Your task to perform on an android device: Clear the cart on amazon. Search for razer nari on amazon, select the first entry, and add it to the cart. Image 0: 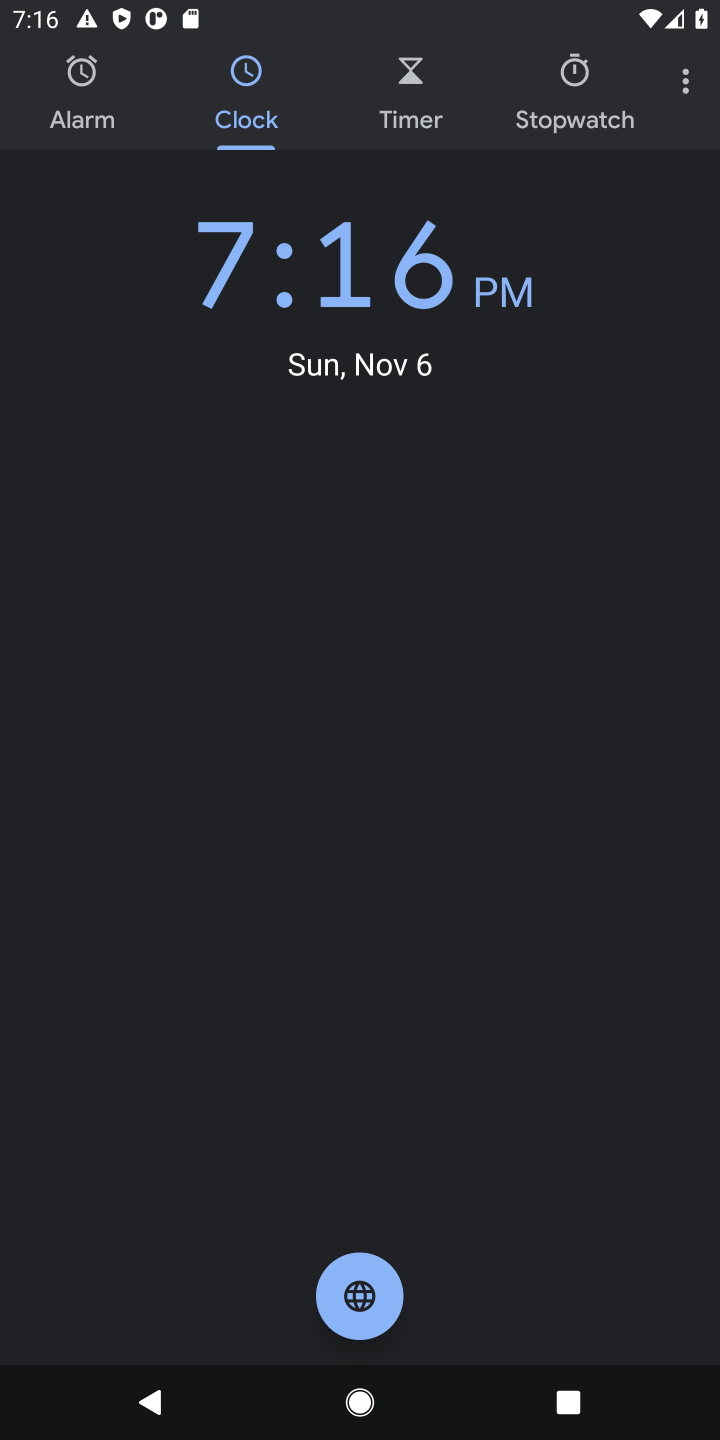
Step 0: press home button
Your task to perform on an android device: Clear the cart on amazon. Search for razer nari on amazon, select the first entry, and add it to the cart. Image 1: 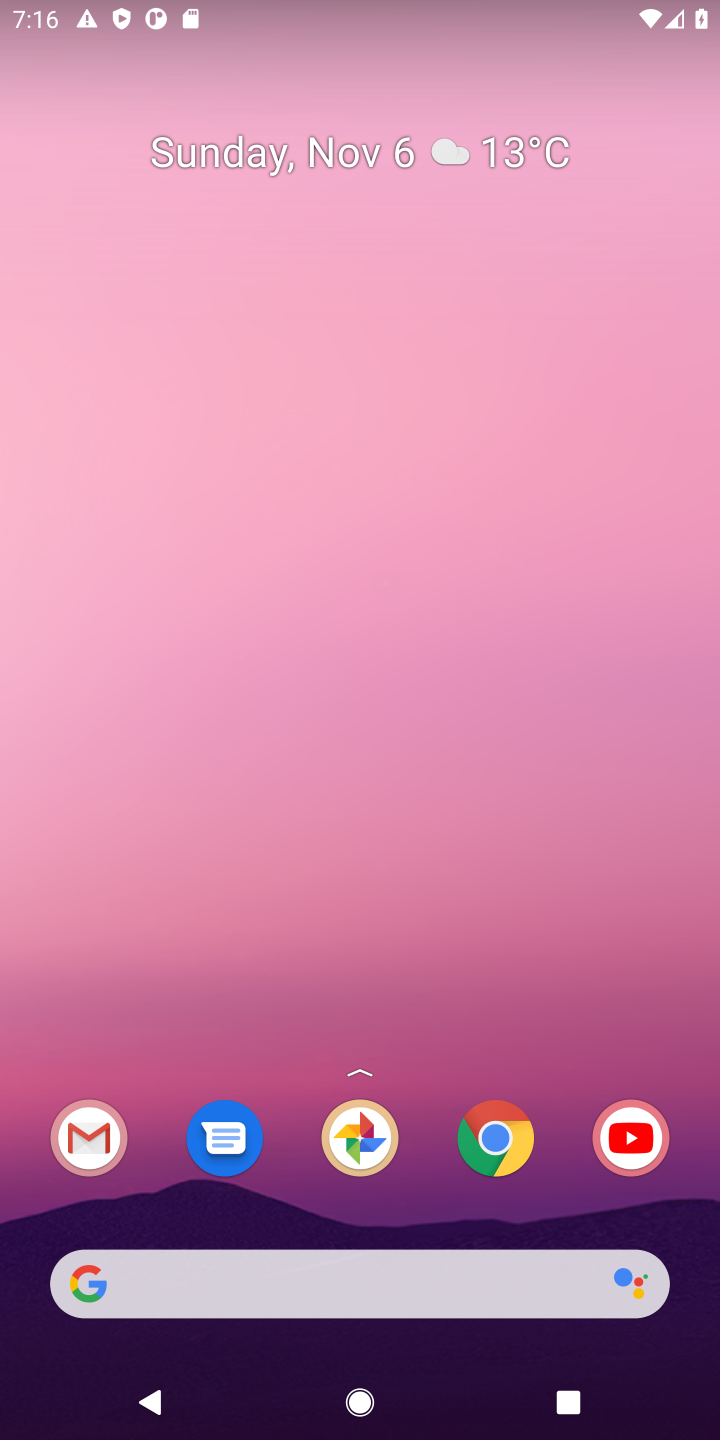
Step 1: click (503, 1133)
Your task to perform on an android device: Clear the cart on amazon. Search for razer nari on amazon, select the first entry, and add it to the cart. Image 2: 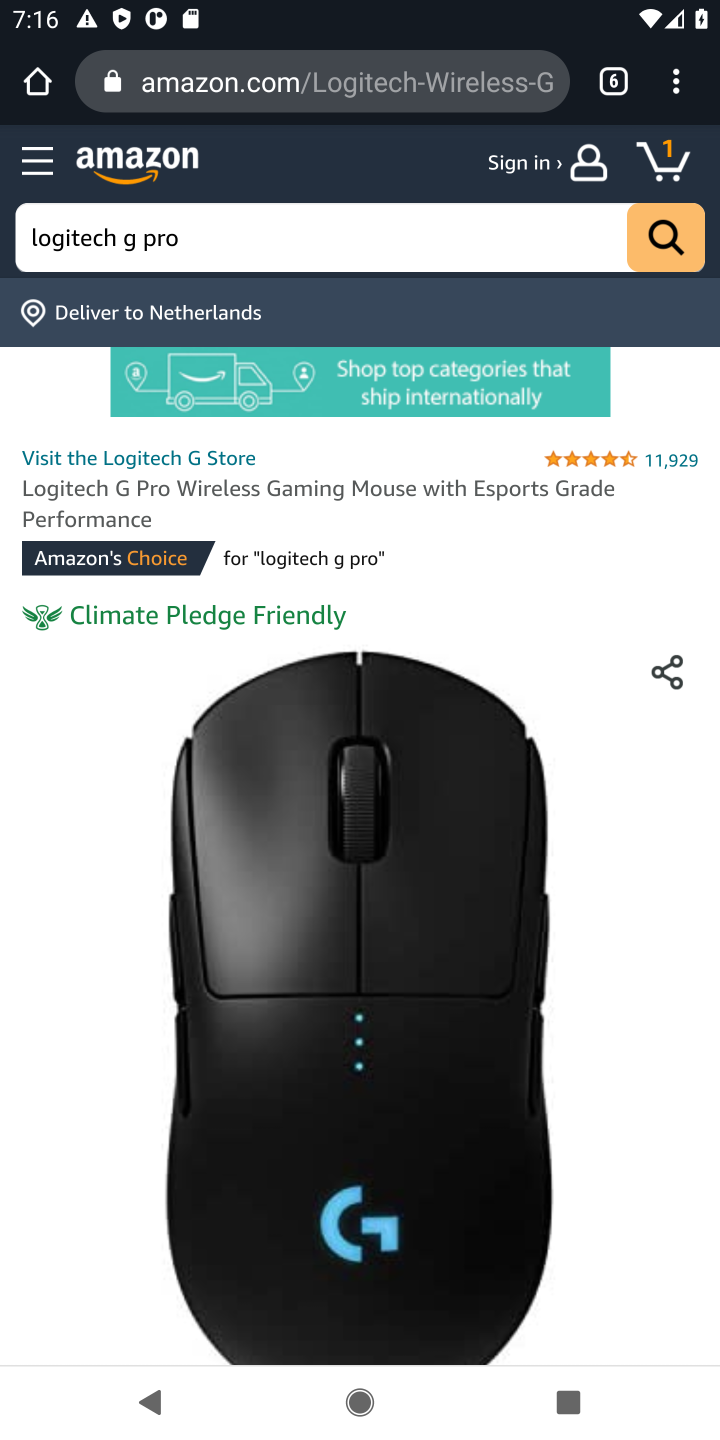
Step 2: click (617, 83)
Your task to perform on an android device: Clear the cart on amazon. Search for razer nari on amazon, select the first entry, and add it to the cart. Image 3: 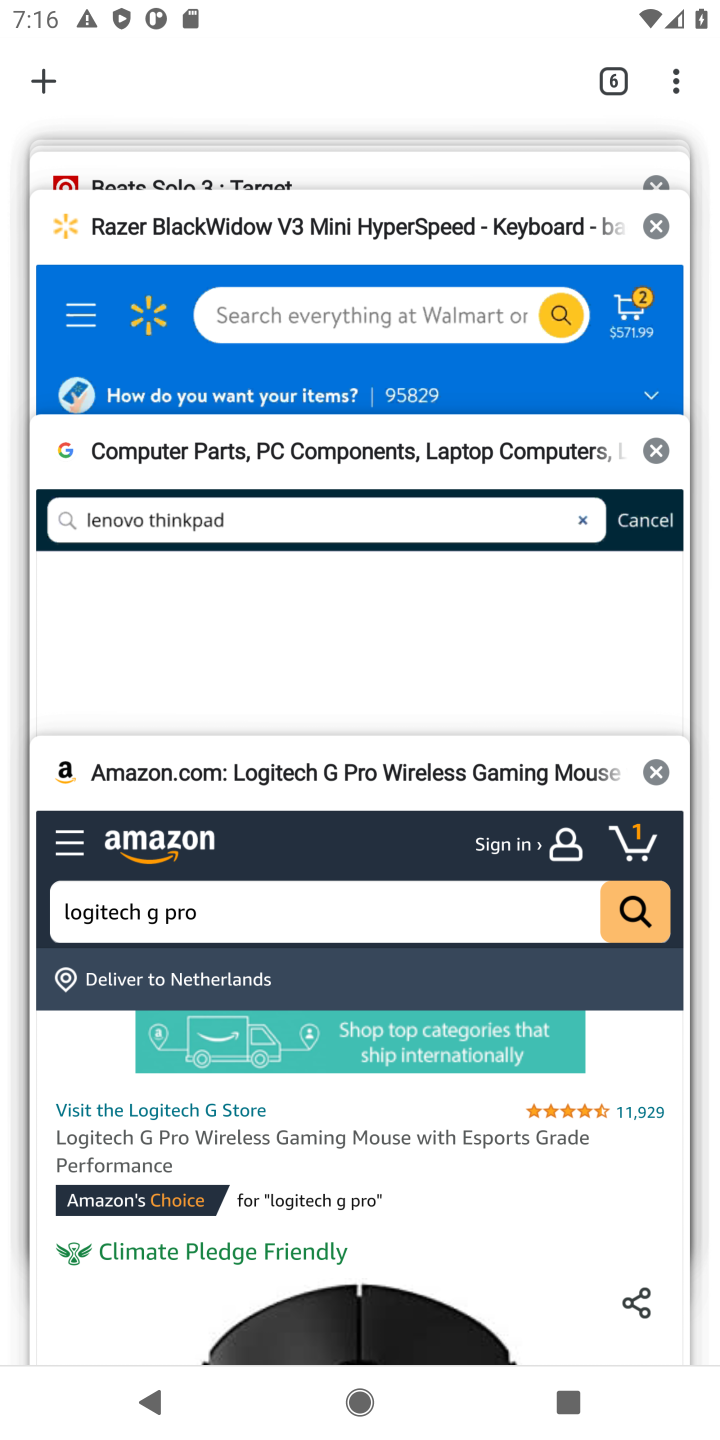
Step 3: click (264, 997)
Your task to perform on an android device: Clear the cart on amazon. Search for razer nari on amazon, select the first entry, and add it to the cart. Image 4: 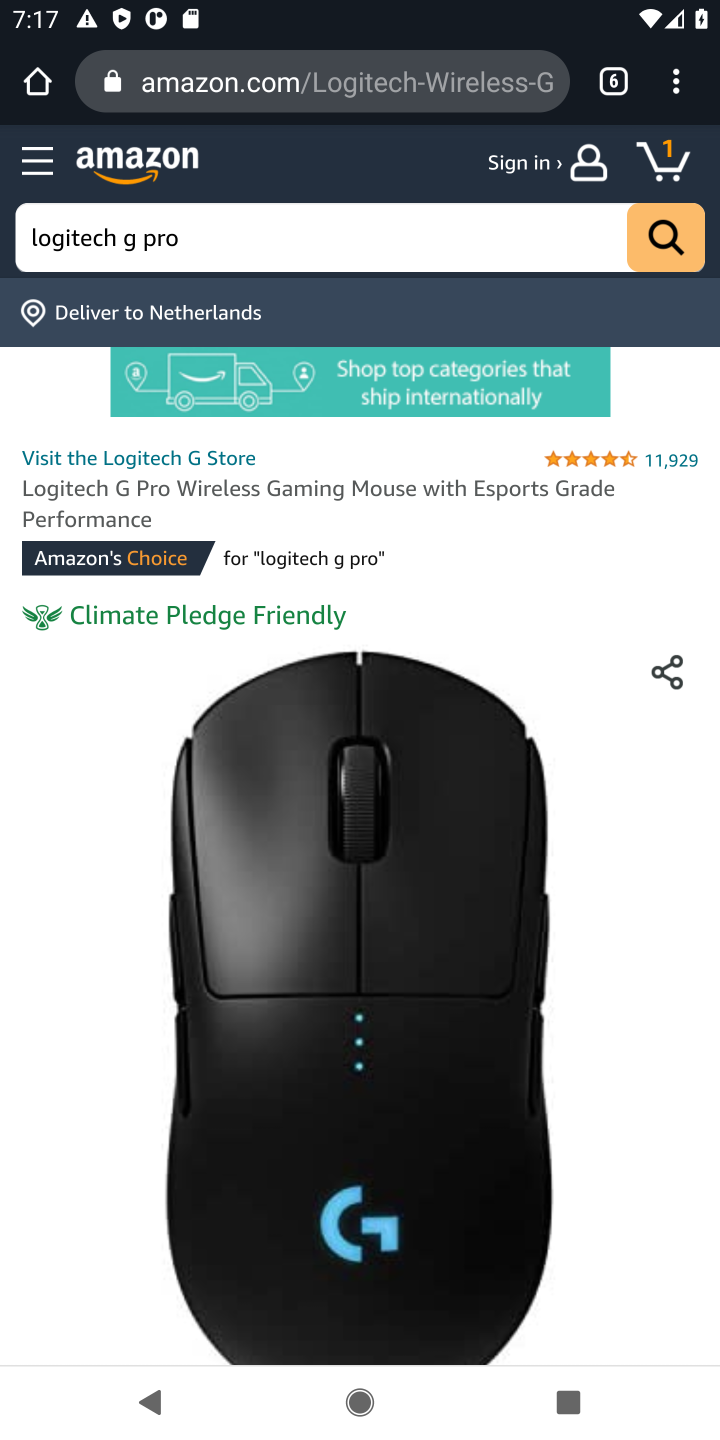
Step 4: click (210, 239)
Your task to perform on an android device: Clear the cart on amazon. Search for razer nari on amazon, select the first entry, and add it to the cart. Image 5: 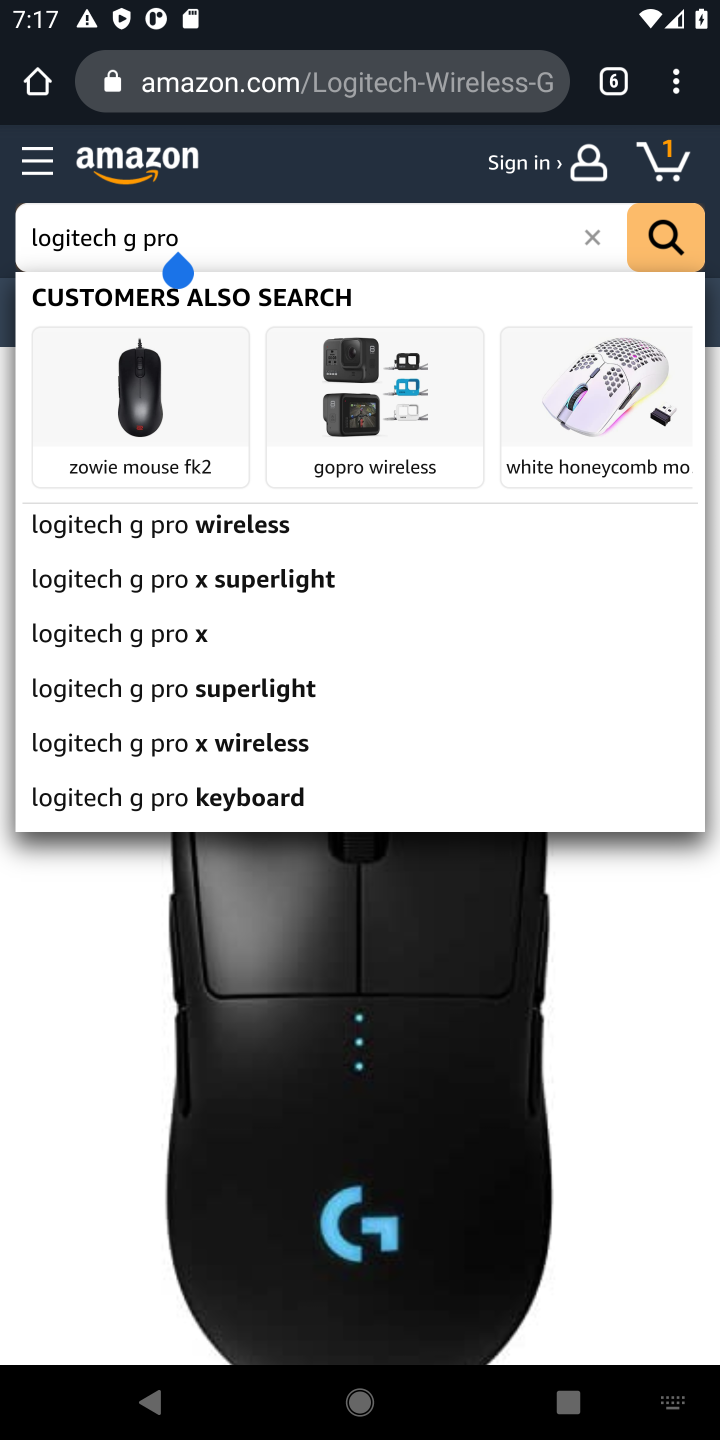
Step 5: click (594, 243)
Your task to perform on an android device: Clear the cart on amazon. Search for razer nari on amazon, select the first entry, and add it to the cart. Image 6: 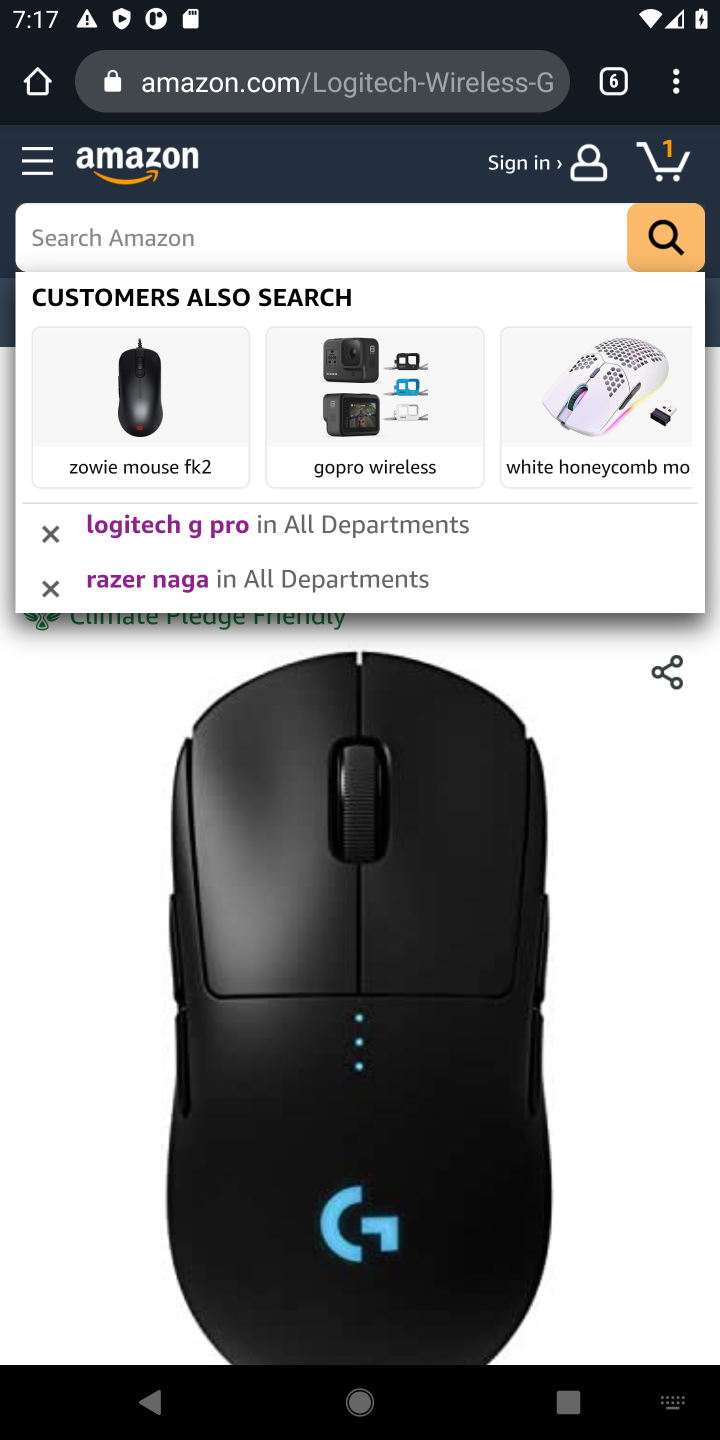
Step 6: click (408, 241)
Your task to perform on an android device: Clear the cart on amazon. Search for razer nari on amazon, select the first entry, and add it to the cart. Image 7: 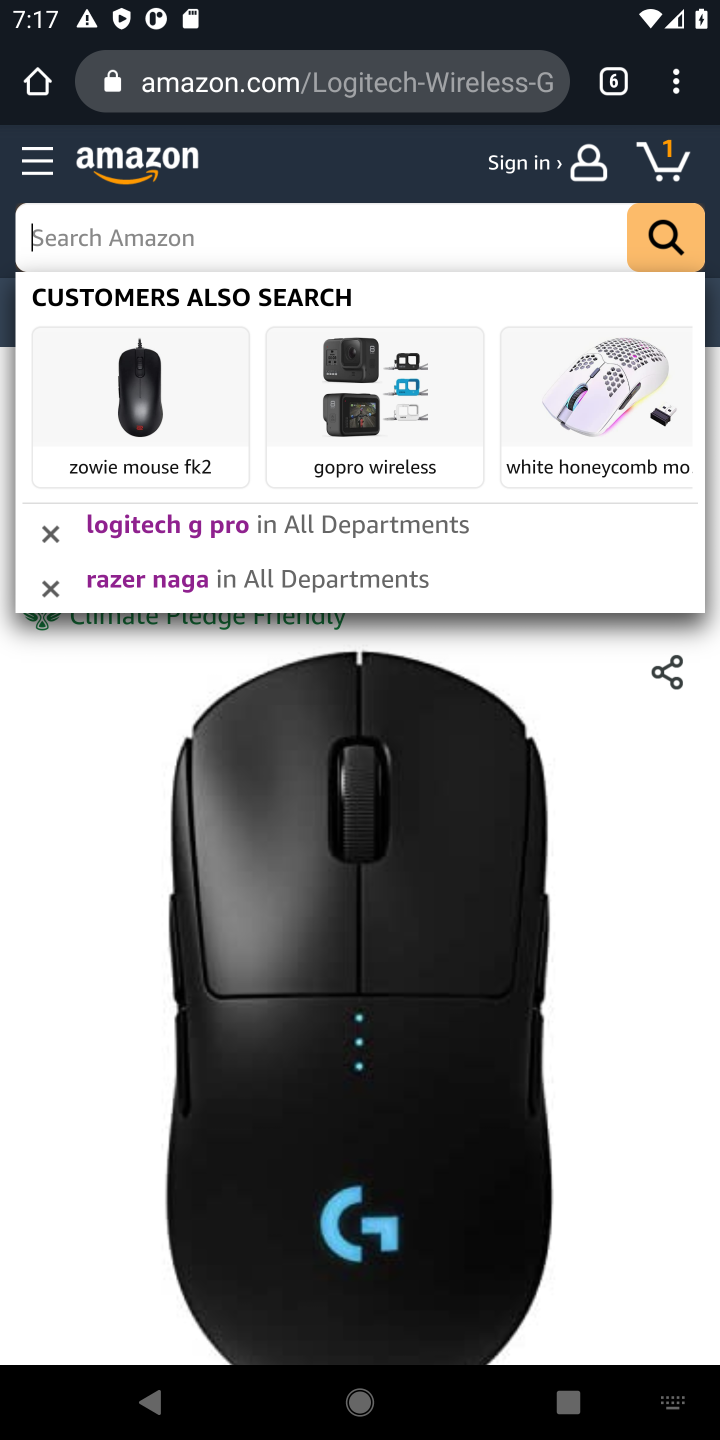
Step 7: click (235, 221)
Your task to perform on an android device: Clear the cart on amazon. Search for razer nari on amazon, select the first entry, and add it to the cart. Image 8: 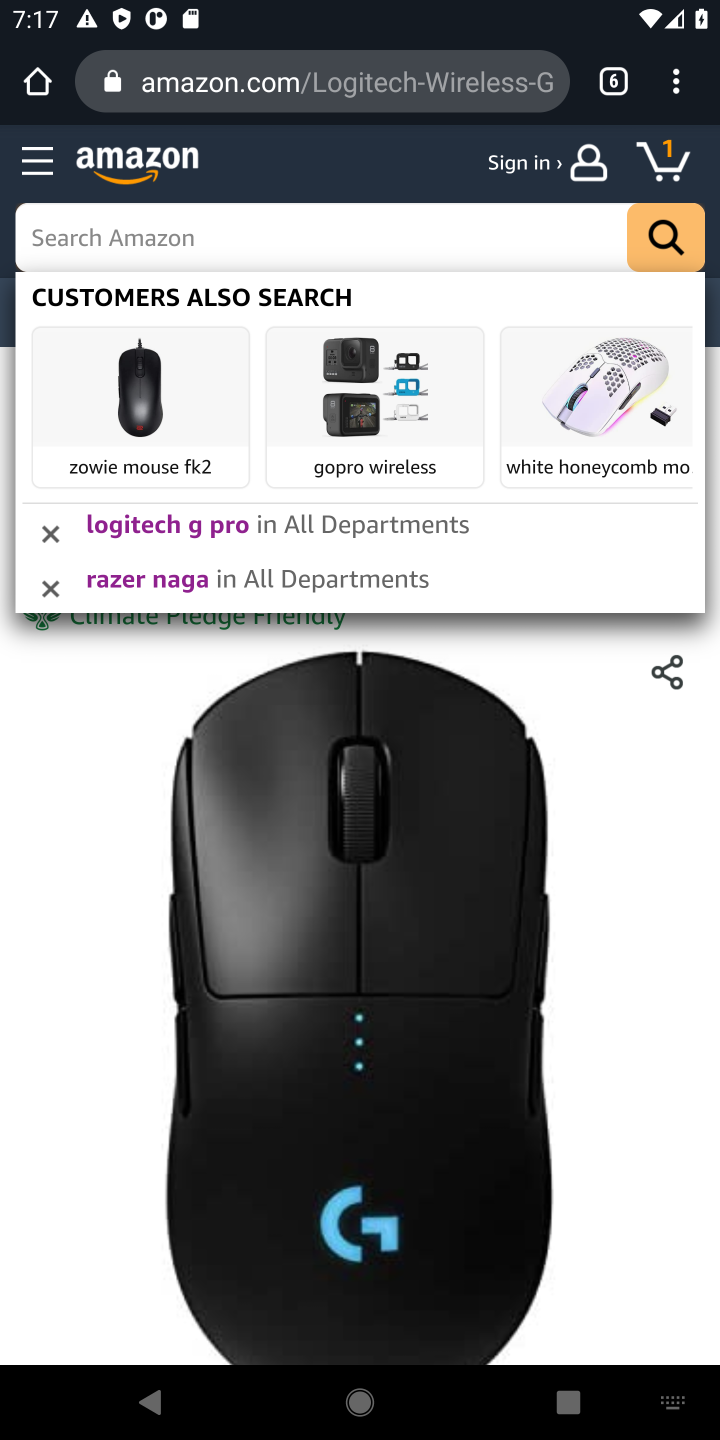
Step 8: click (139, 247)
Your task to perform on an android device: Clear the cart on amazon. Search for razer nari on amazon, select the first entry, and add it to the cart. Image 9: 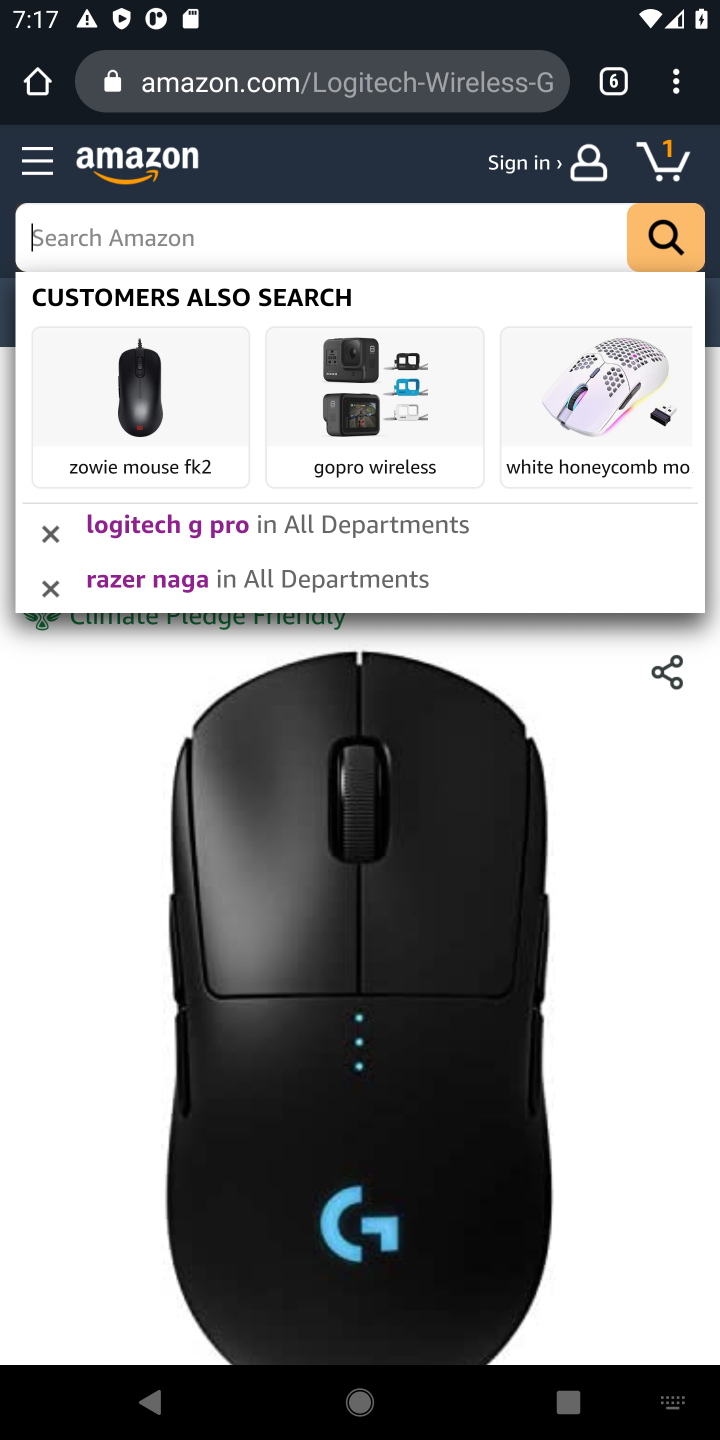
Step 9: type "razer nari"
Your task to perform on an android device: Clear the cart on amazon. Search for razer nari on amazon, select the first entry, and add it to the cart. Image 10: 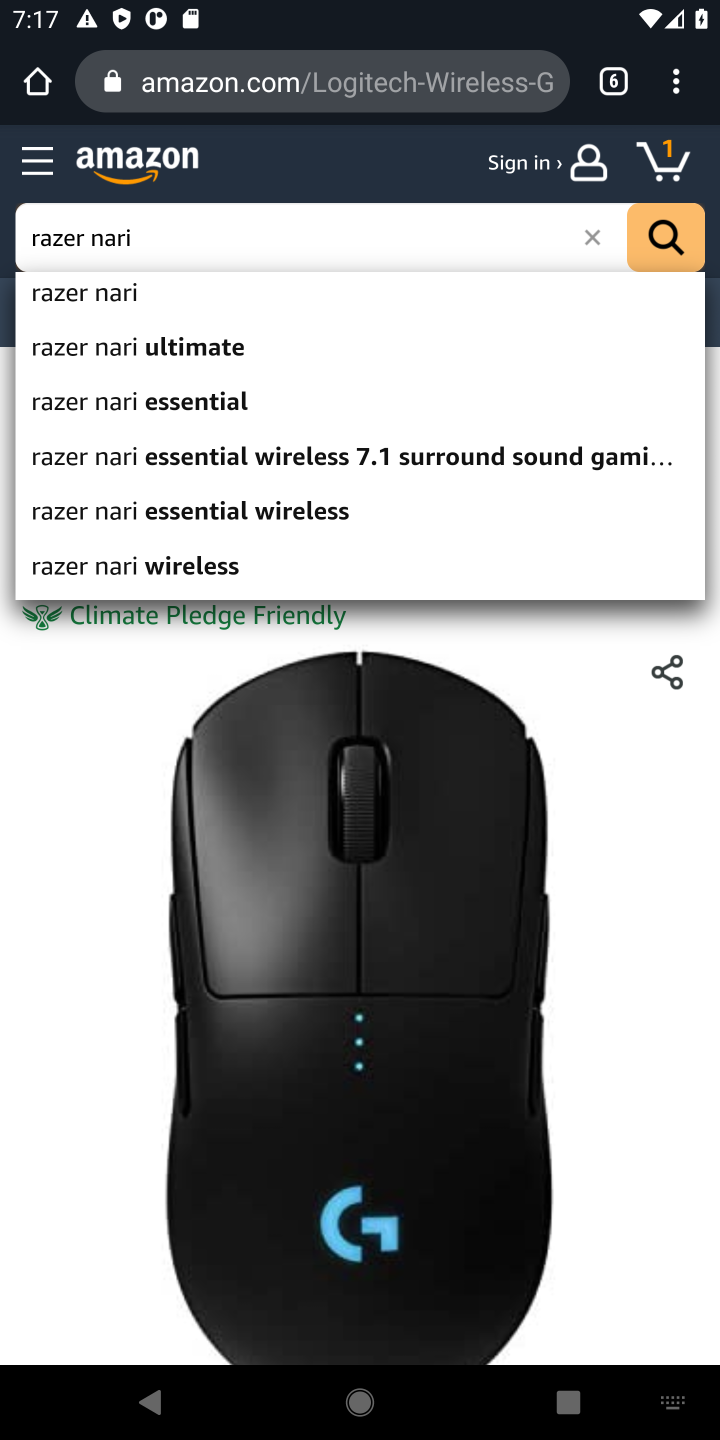
Step 10: click (132, 306)
Your task to perform on an android device: Clear the cart on amazon. Search for razer nari on amazon, select the first entry, and add it to the cart. Image 11: 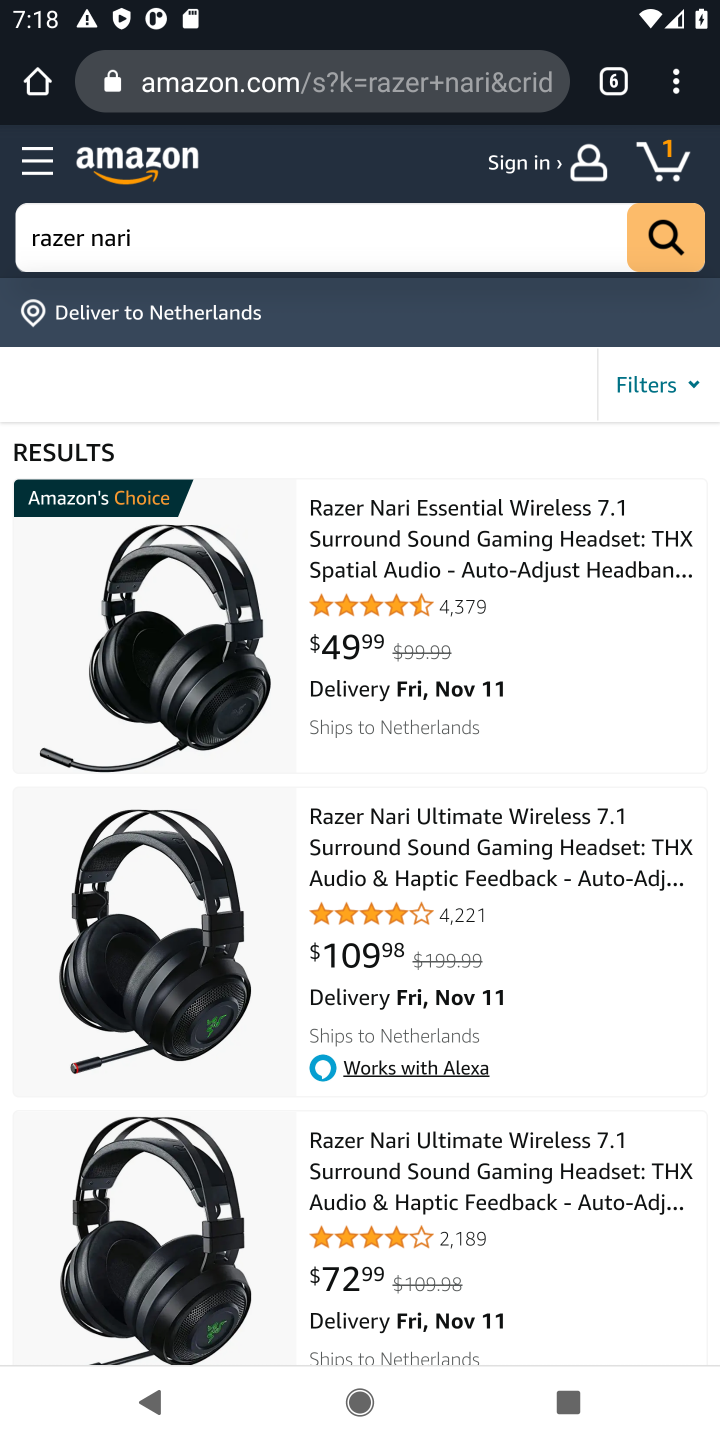
Step 11: click (359, 582)
Your task to perform on an android device: Clear the cart on amazon. Search for razer nari on amazon, select the first entry, and add it to the cart. Image 12: 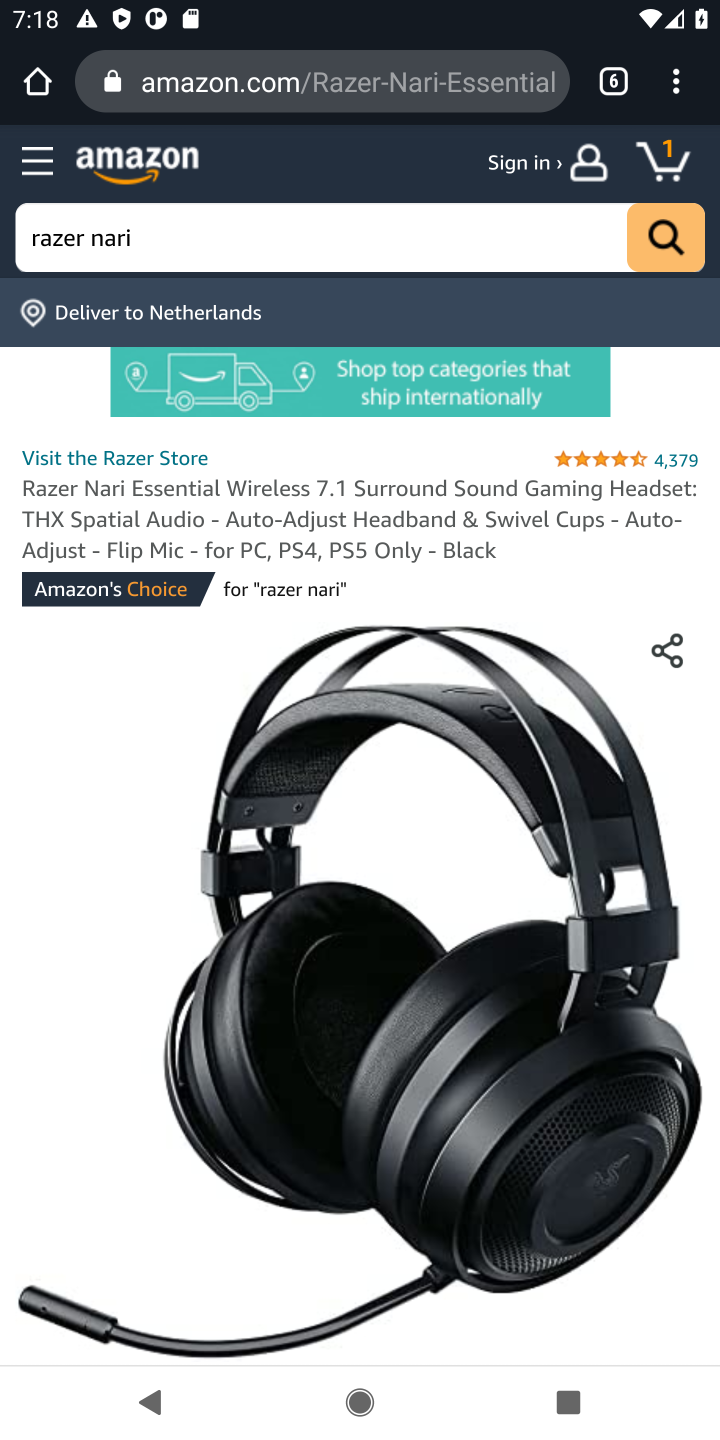
Step 12: drag from (391, 1194) to (447, 555)
Your task to perform on an android device: Clear the cart on amazon. Search for razer nari on amazon, select the first entry, and add it to the cart. Image 13: 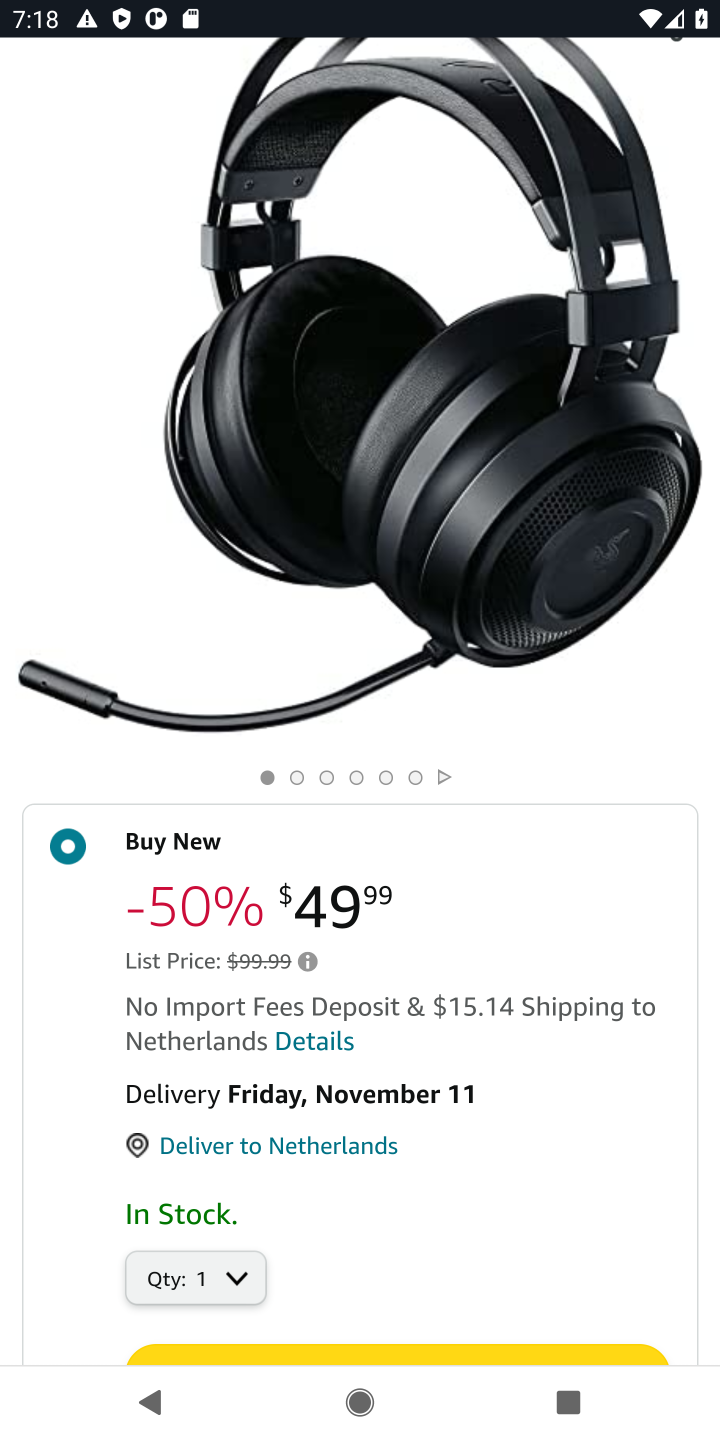
Step 13: drag from (317, 1150) to (391, 388)
Your task to perform on an android device: Clear the cart on amazon. Search for razer nari on amazon, select the first entry, and add it to the cart. Image 14: 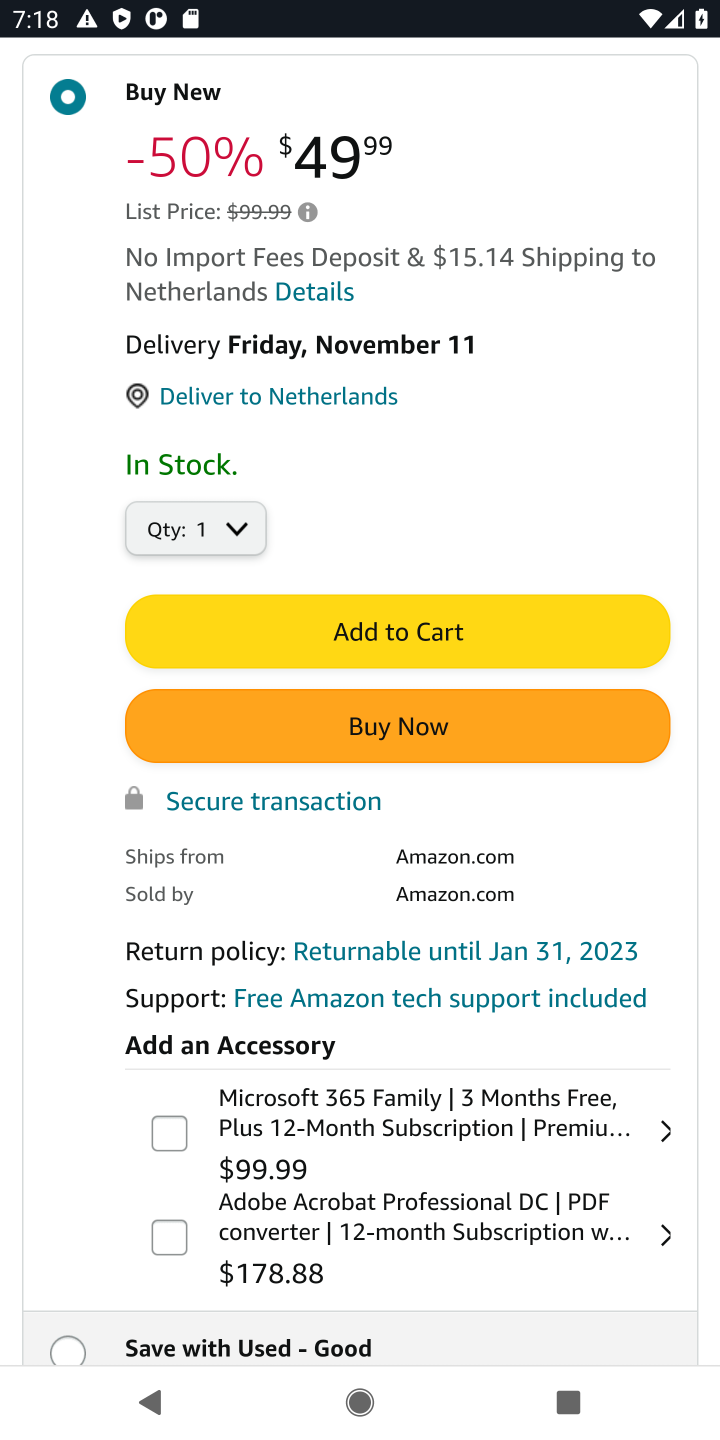
Step 14: click (379, 625)
Your task to perform on an android device: Clear the cart on amazon. Search for razer nari on amazon, select the first entry, and add it to the cart. Image 15: 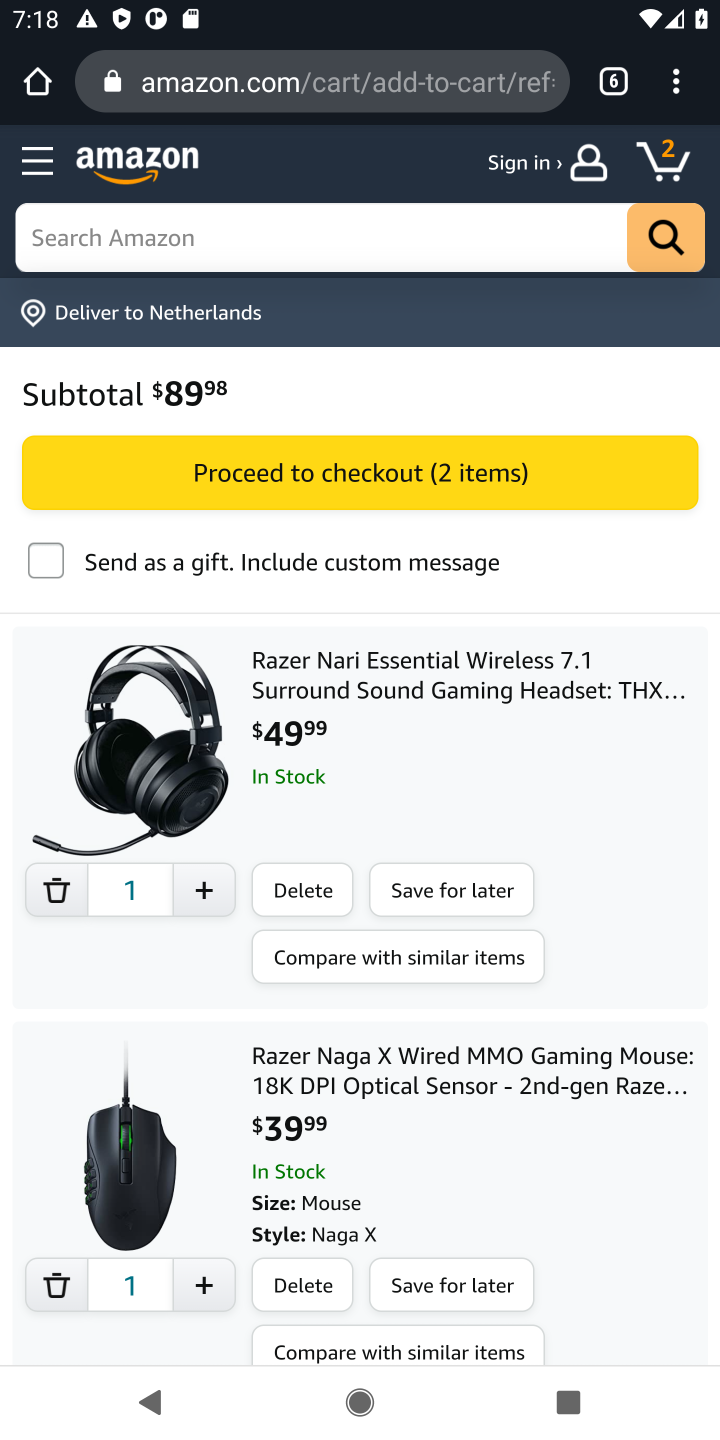
Step 15: task complete